Your task to perform on an android device: What's the weather? Image 0: 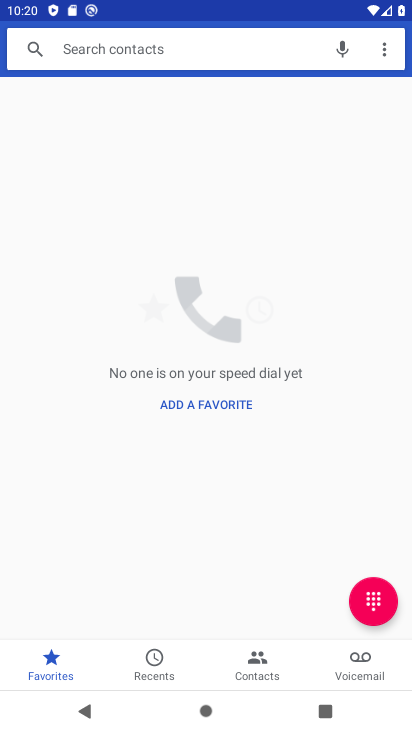
Step 0: press home button
Your task to perform on an android device: What's the weather? Image 1: 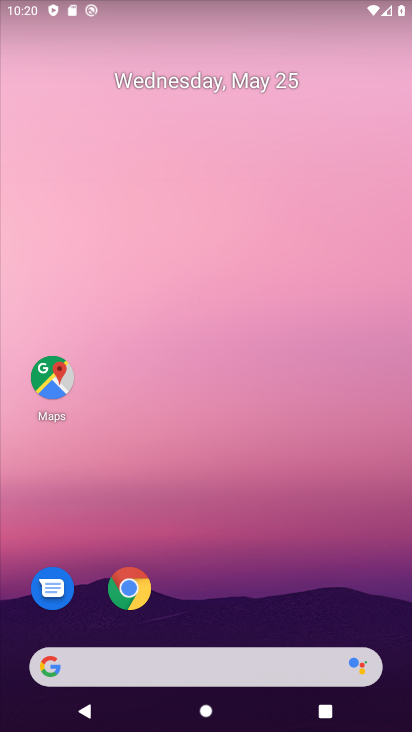
Step 1: drag from (243, 480) to (271, 73)
Your task to perform on an android device: What's the weather? Image 2: 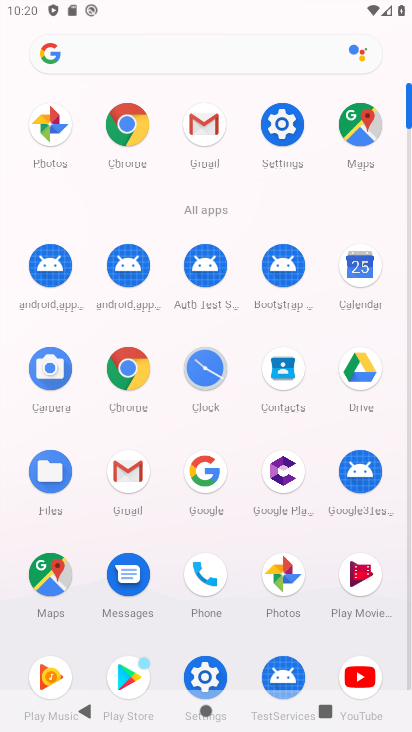
Step 2: click (128, 361)
Your task to perform on an android device: What's the weather? Image 3: 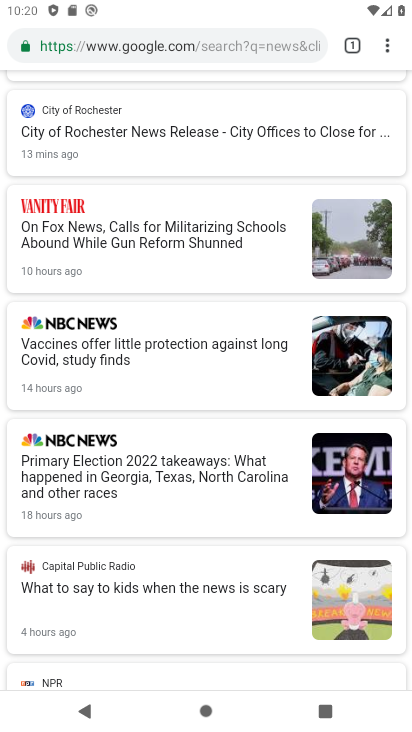
Step 3: drag from (196, 117) to (215, 593)
Your task to perform on an android device: What's the weather? Image 4: 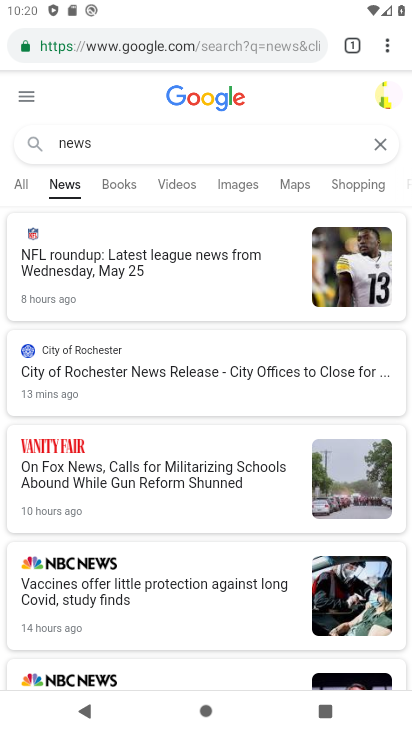
Step 4: click (185, 44)
Your task to perform on an android device: What's the weather? Image 5: 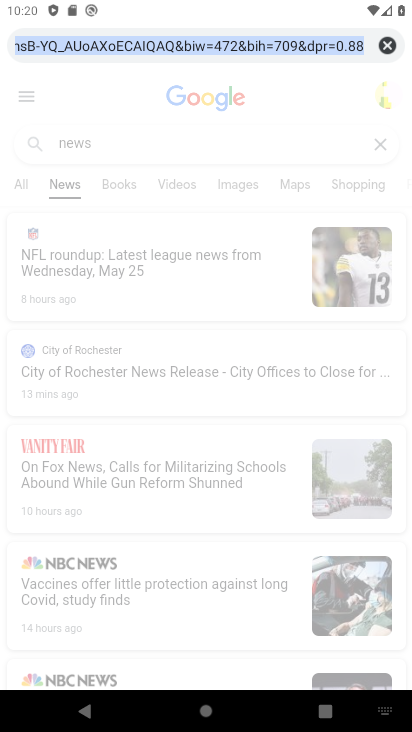
Step 5: type "weather"
Your task to perform on an android device: What's the weather? Image 6: 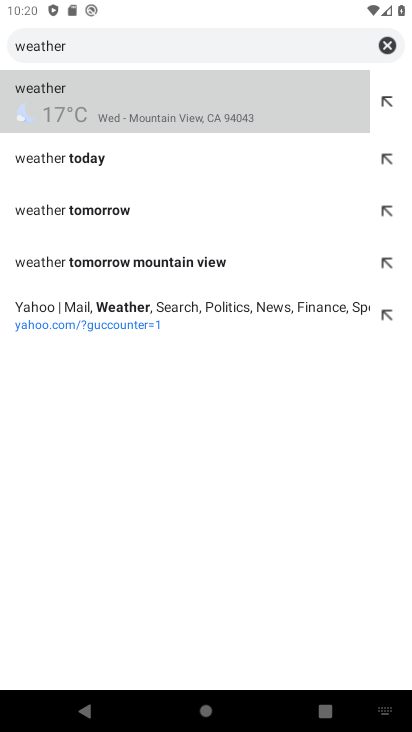
Step 6: click (51, 100)
Your task to perform on an android device: What's the weather? Image 7: 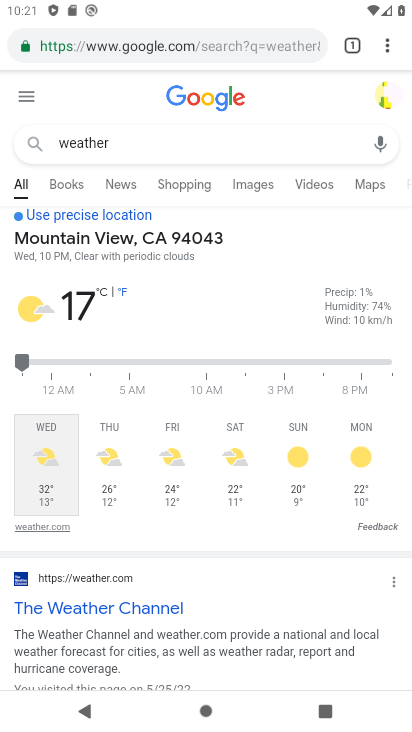
Step 7: task complete